Your task to perform on an android device: check battery use Image 0: 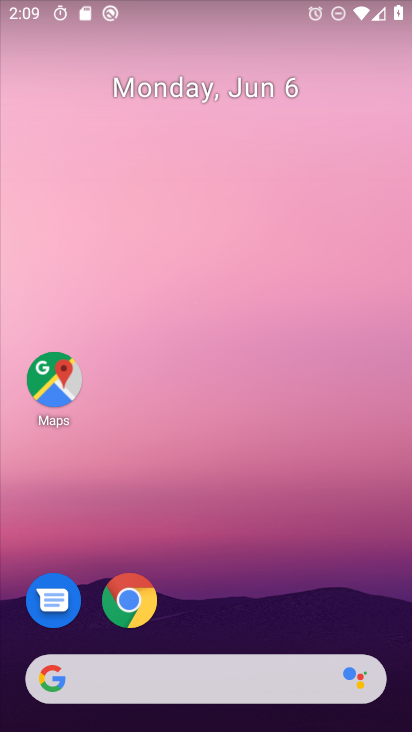
Step 0: drag from (204, 628) to (211, 236)
Your task to perform on an android device: check battery use Image 1: 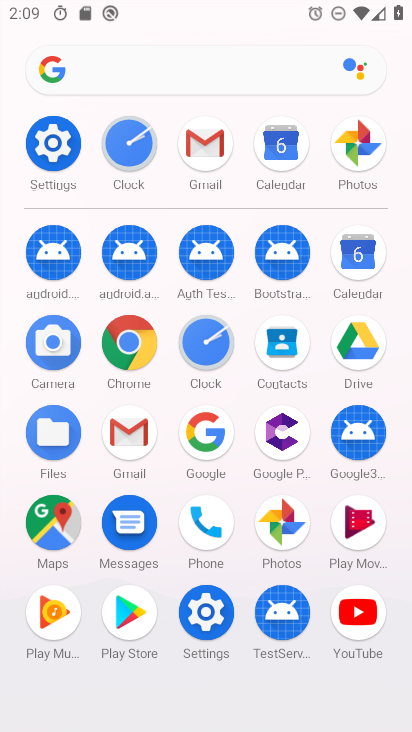
Step 1: click (44, 143)
Your task to perform on an android device: check battery use Image 2: 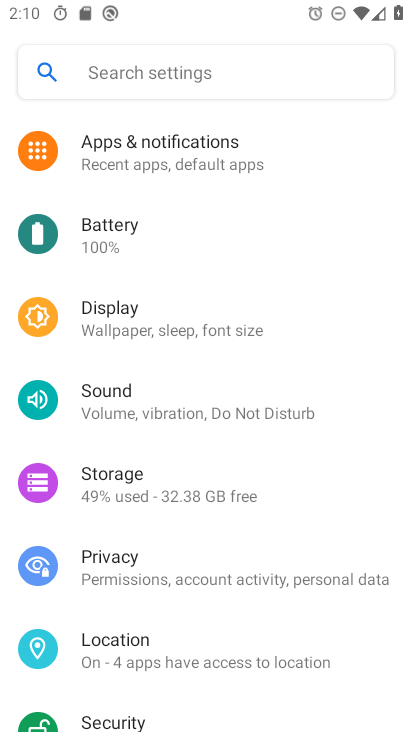
Step 2: click (191, 239)
Your task to perform on an android device: check battery use Image 3: 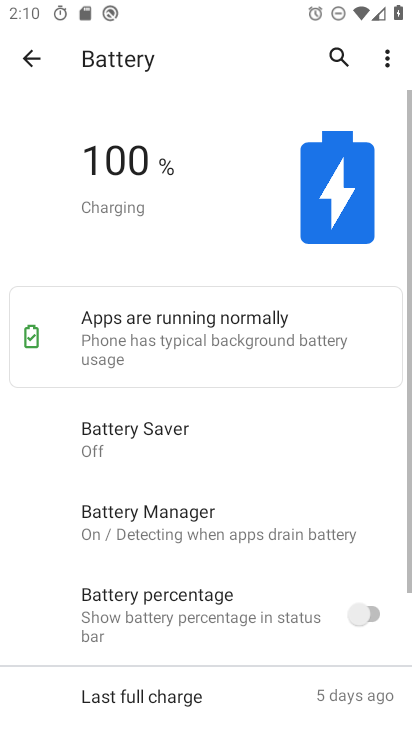
Step 3: click (388, 60)
Your task to perform on an android device: check battery use Image 4: 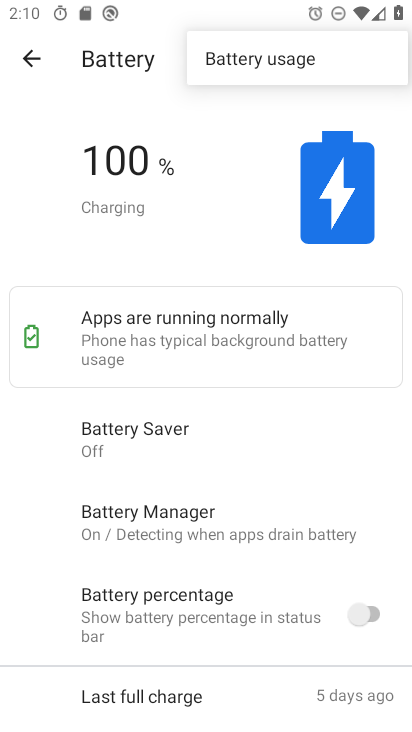
Step 4: click (284, 59)
Your task to perform on an android device: check battery use Image 5: 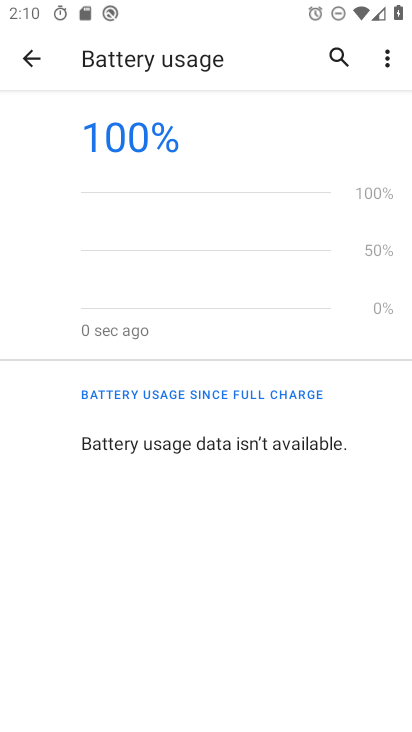
Step 5: task complete